Your task to perform on an android device: Open calendar and show me the second week of next month Image 0: 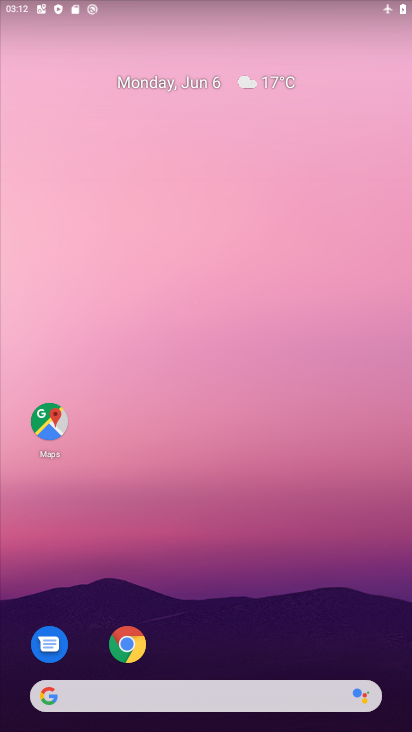
Step 0: drag from (397, 713) to (398, 141)
Your task to perform on an android device: Open calendar and show me the second week of next month Image 1: 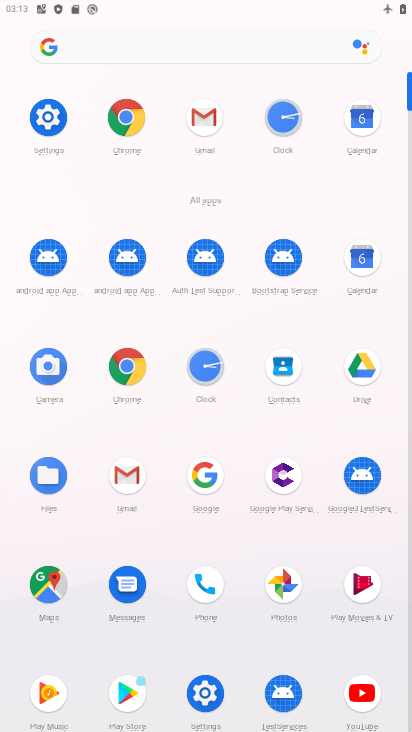
Step 1: click (363, 111)
Your task to perform on an android device: Open calendar and show me the second week of next month Image 2: 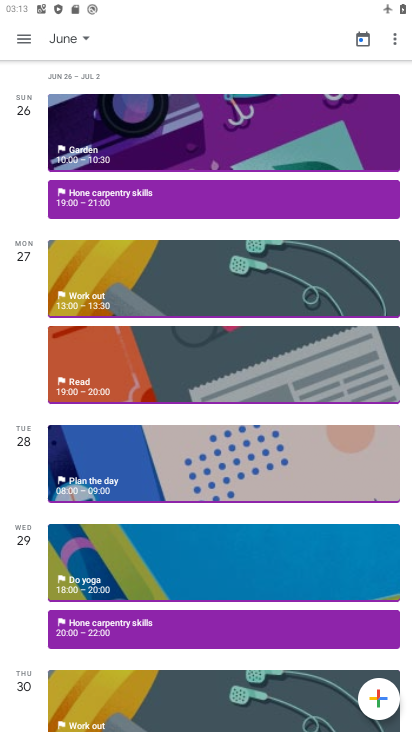
Step 2: click (26, 35)
Your task to perform on an android device: Open calendar and show me the second week of next month Image 3: 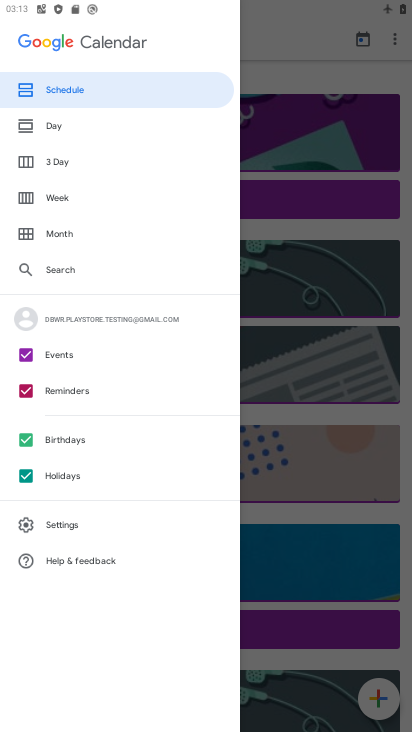
Step 3: press home button
Your task to perform on an android device: Open calendar and show me the second week of next month Image 4: 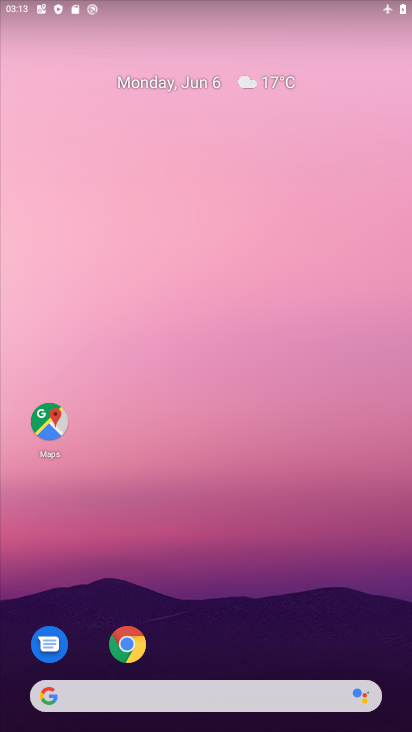
Step 4: drag from (392, 711) to (328, 61)
Your task to perform on an android device: Open calendar and show me the second week of next month Image 5: 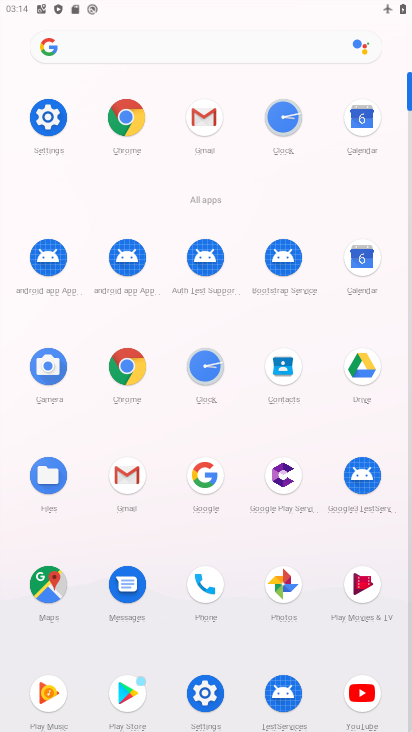
Step 5: click (352, 119)
Your task to perform on an android device: Open calendar and show me the second week of next month Image 6: 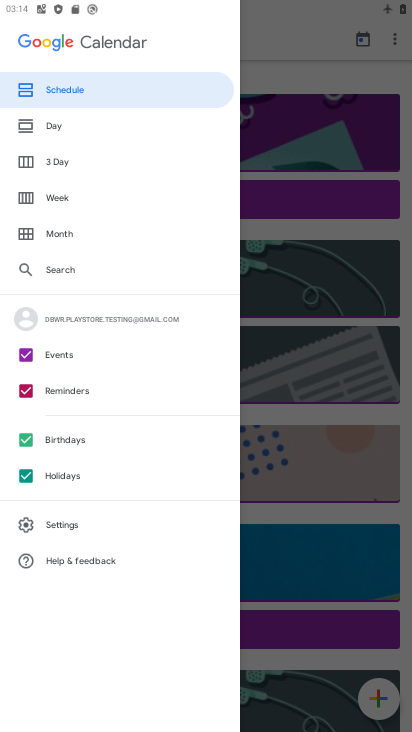
Step 6: click (318, 200)
Your task to perform on an android device: Open calendar and show me the second week of next month Image 7: 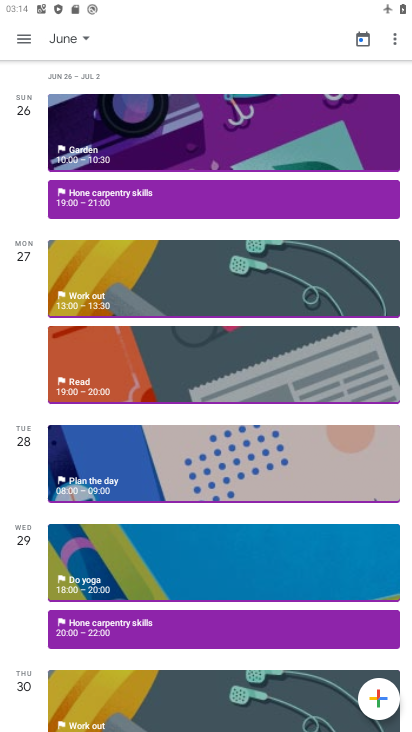
Step 7: click (392, 34)
Your task to perform on an android device: Open calendar and show me the second week of next month Image 8: 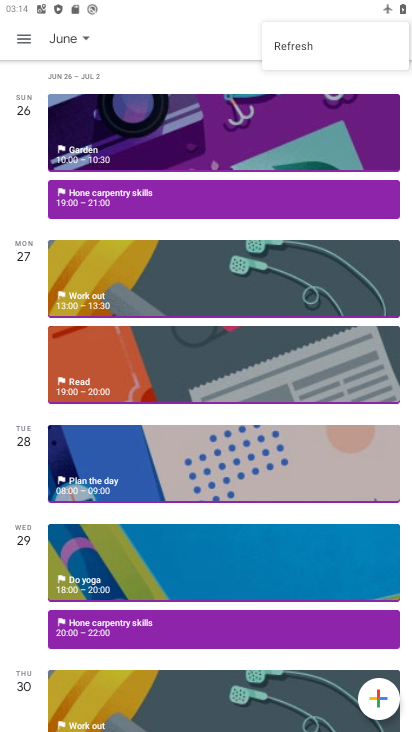
Step 8: click (201, 57)
Your task to perform on an android device: Open calendar and show me the second week of next month Image 9: 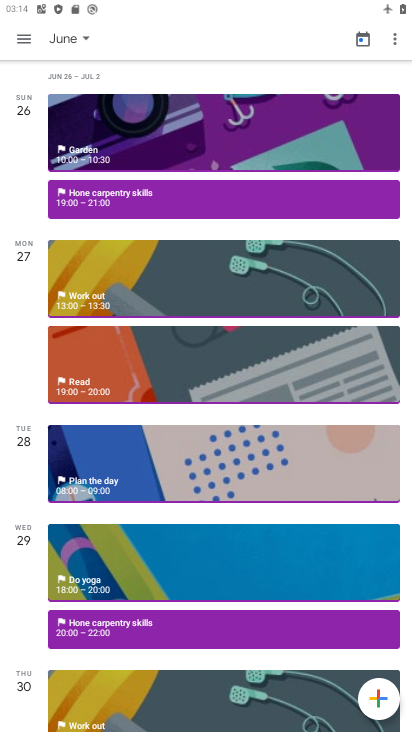
Step 9: click (78, 36)
Your task to perform on an android device: Open calendar and show me the second week of next month Image 10: 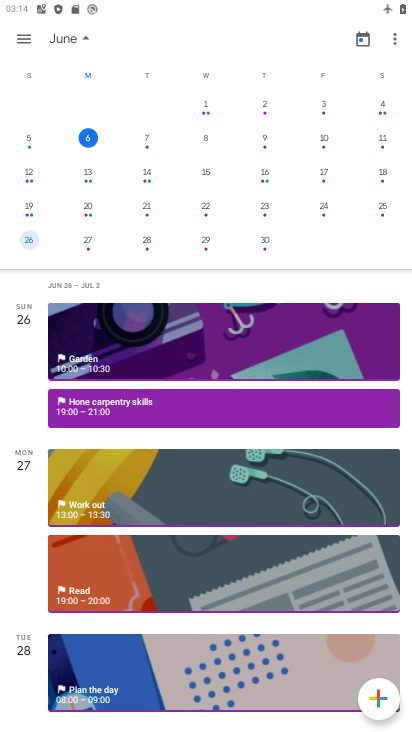
Step 10: drag from (386, 177) to (60, 155)
Your task to perform on an android device: Open calendar and show me the second week of next month Image 11: 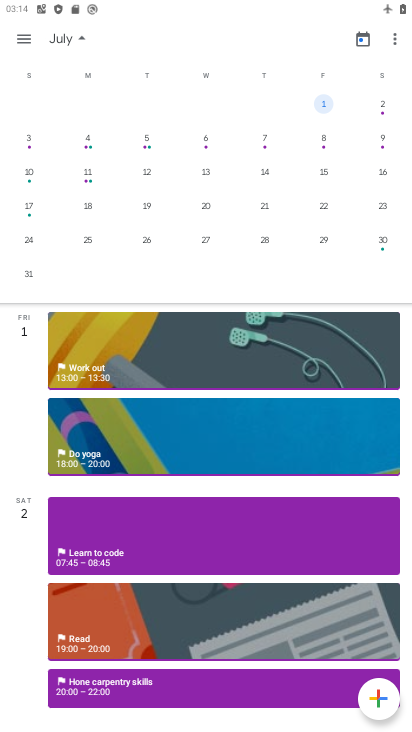
Step 11: click (322, 139)
Your task to perform on an android device: Open calendar and show me the second week of next month Image 12: 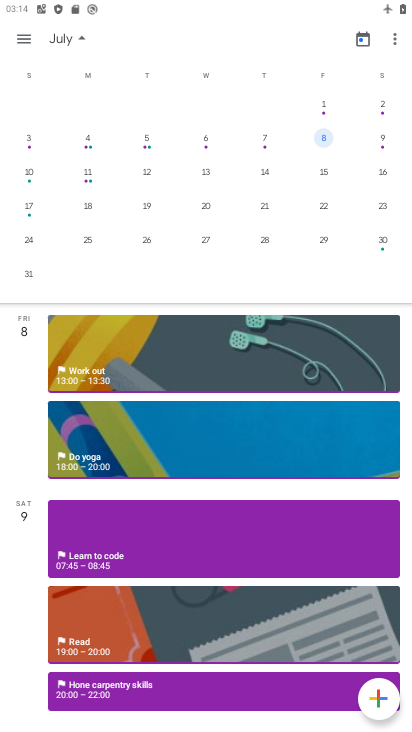
Step 12: task complete